Your task to perform on an android device: Go to accessibility settings Image 0: 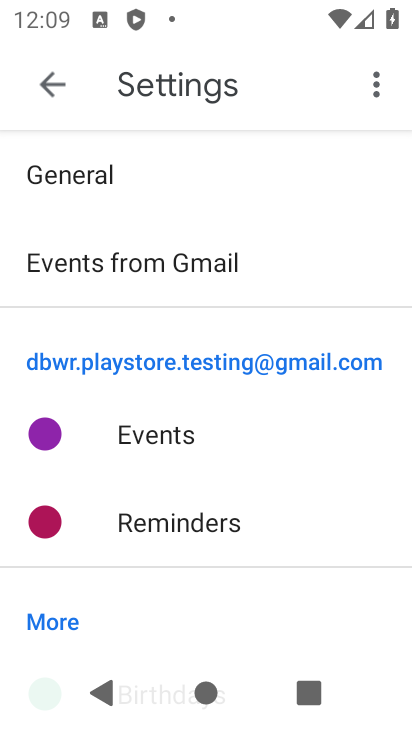
Step 0: press home button
Your task to perform on an android device: Go to accessibility settings Image 1: 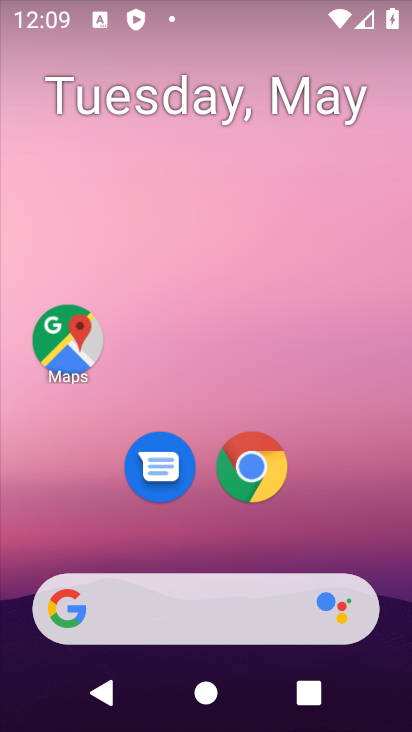
Step 1: drag from (319, 526) to (377, 43)
Your task to perform on an android device: Go to accessibility settings Image 2: 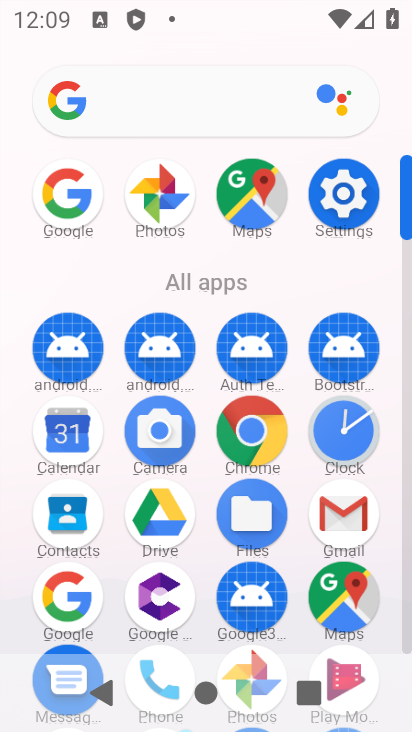
Step 2: click (351, 190)
Your task to perform on an android device: Go to accessibility settings Image 3: 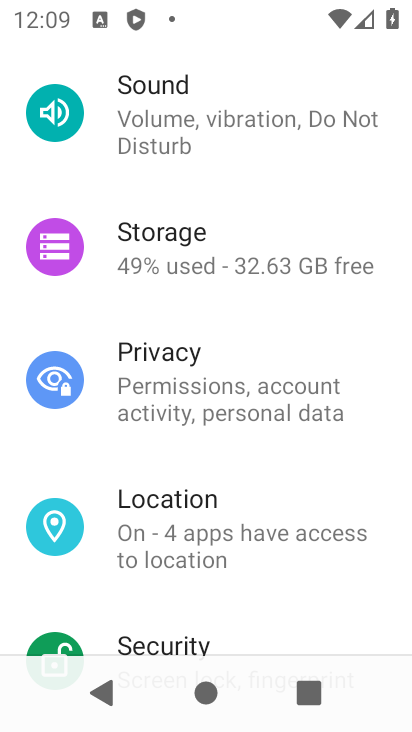
Step 3: drag from (251, 592) to (272, 90)
Your task to perform on an android device: Go to accessibility settings Image 4: 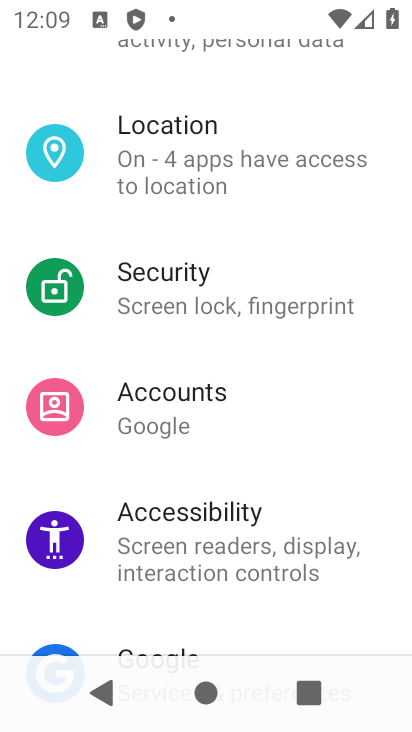
Step 4: click (261, 545)
Your task to perform on an android device: Go to accessibility settings Image 5: 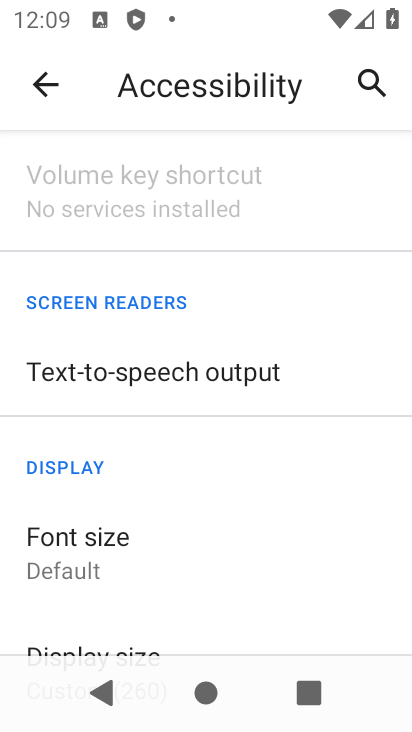
Step 5: task complete